Your task to perform on an android device: find which apps use the phone's location Image 0: 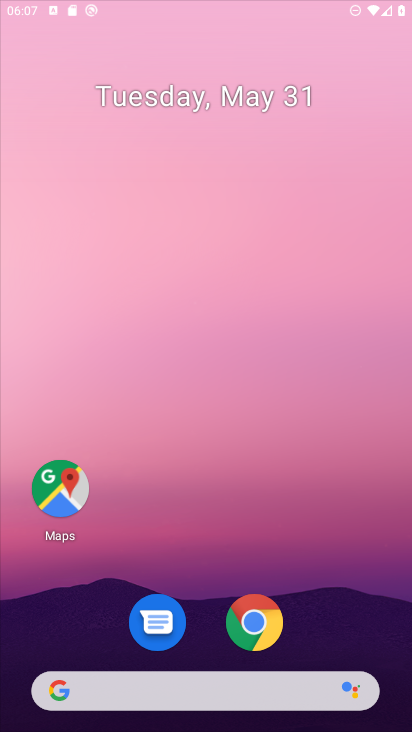
Step 0: drag from (273, 599) to (260, 14)
Your task to perform on an android device: find which apps use the phone's location Image 1: 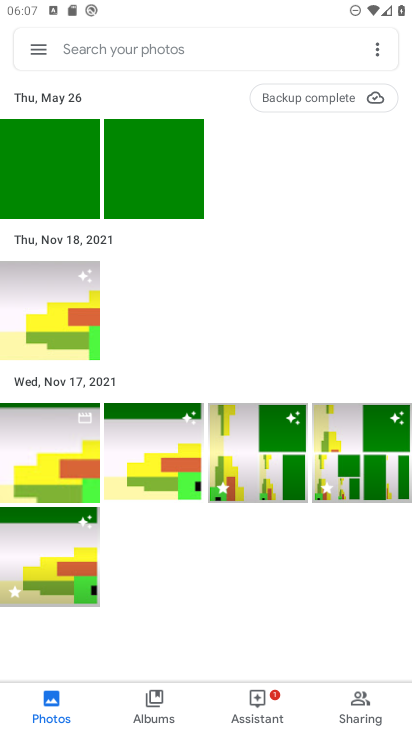
Step 1: press home button
Your task to perform on an android device: find which apps use the phone's location Image 2: 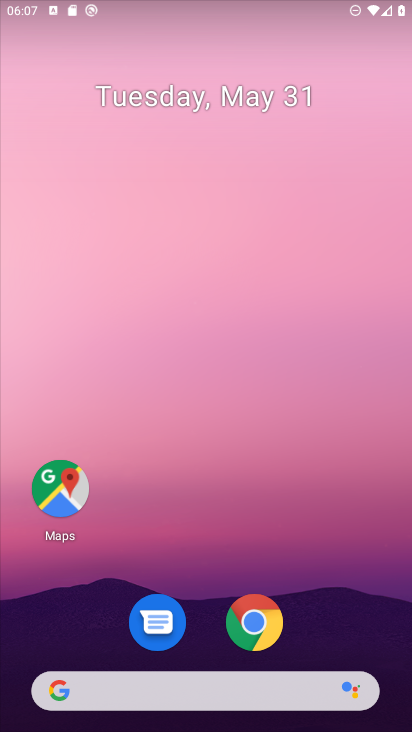
Step 2: drag from (196, 661) to (227, 17)
Your task to perform on an android device: find which apps use the phone's location Image 3: 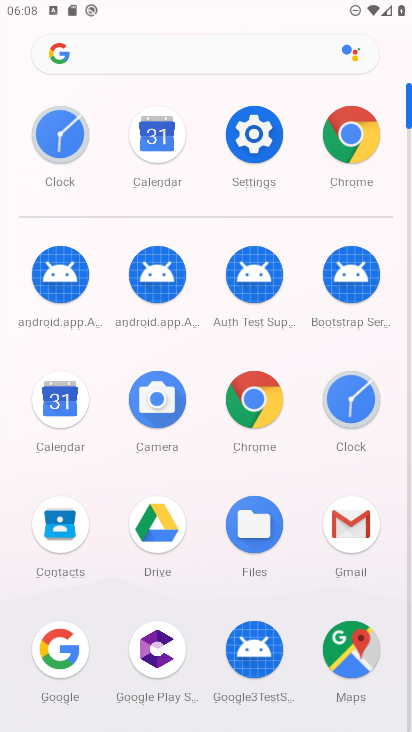
Step 3: click (264, 146)
Your task to perform on an android device: find which apps use the phone's location Image 4: 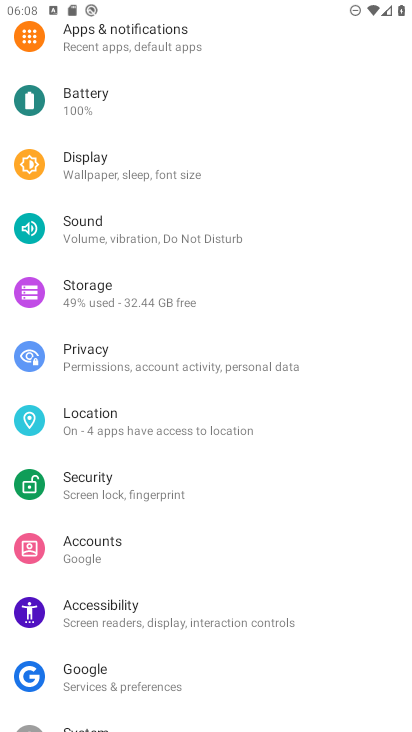
Step 4: click (107, 428)
Your task to perform on an android device: find which apps use the phone's location Image 5: 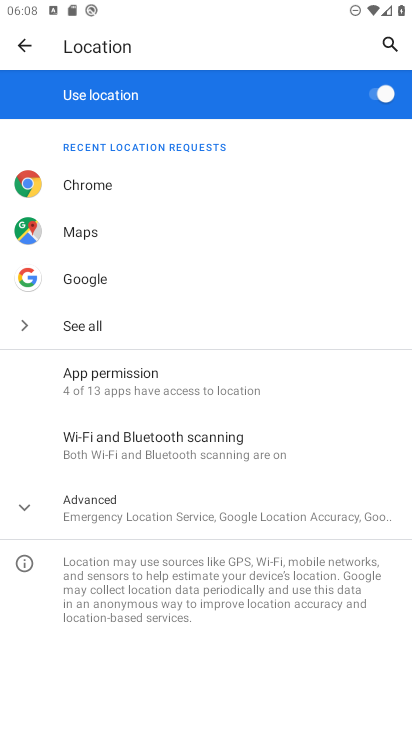
Step 5: click (239, 370)
Your task to perform on an android device: find which apps use the phone's location Image 6: 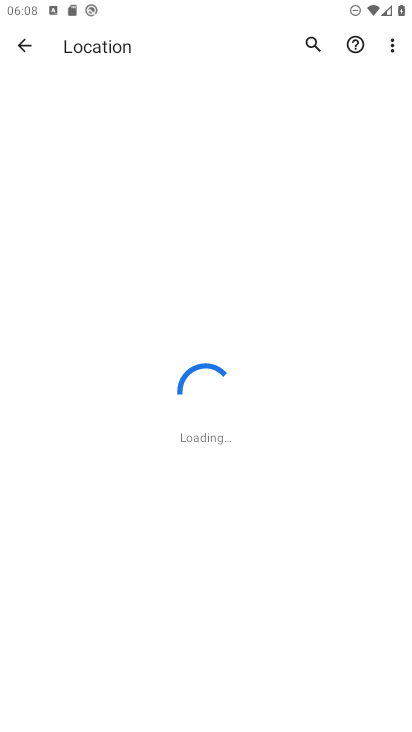
Step 6: task complete